Your task to perform on an android device: Is it going to rain today? Image 0: 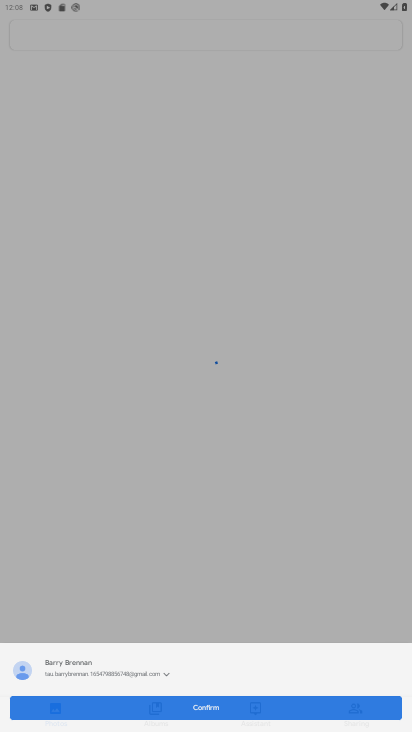
Step 0: press home button
Your task to perform on an android device: Is it going to rain today? Image 1: 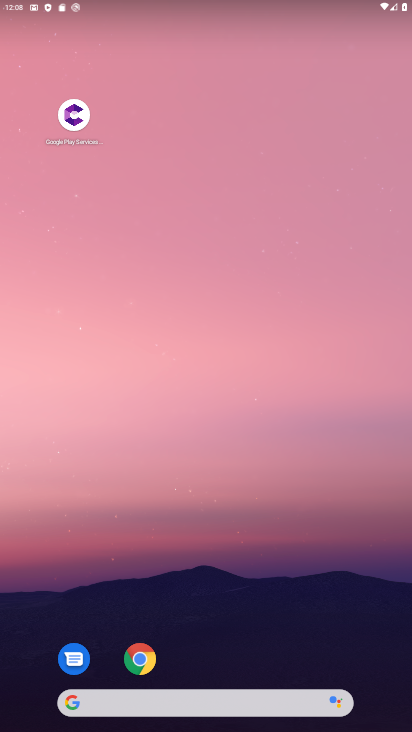
Step 1: drag from (219, 610) to (246, 138)
Your task to perform on an android device: Is it going to rain today? Image 2: 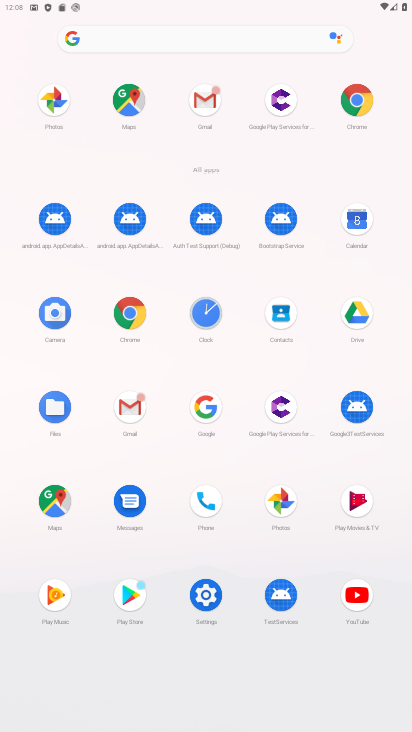
Step 2: click (132, 327)
Your task to perform on an android device: Is it going to rain today? Image 3: 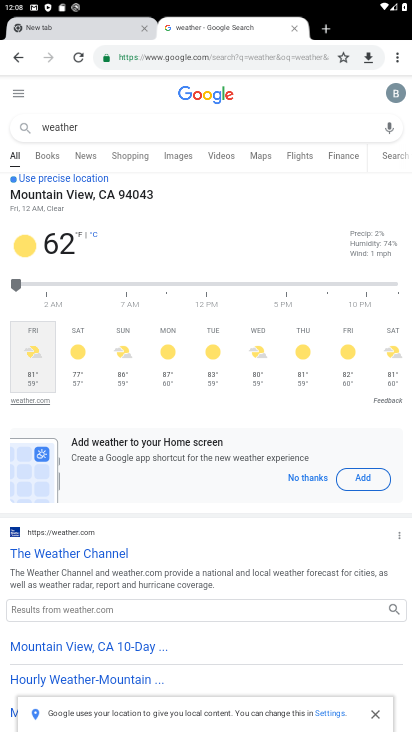
Step 3: click (88, 354)
Your task to perform on an android device: Is it going to rain today? Image 4: 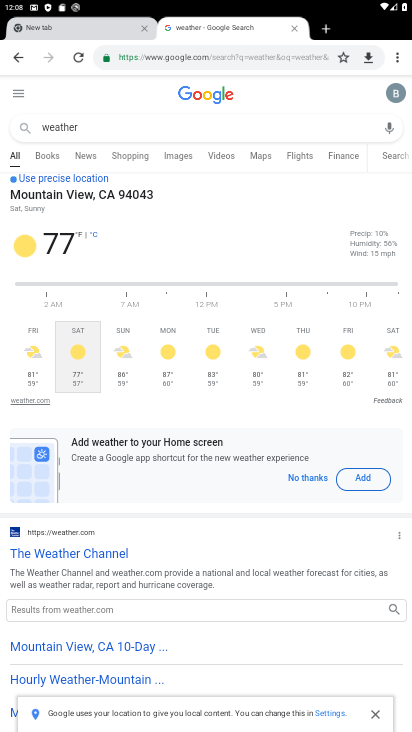
Step 4: task complete